Your task to perform on an android device: show emergency info Image 0: 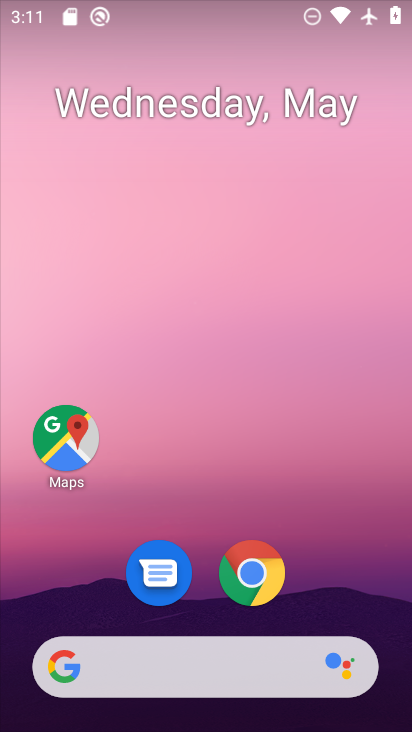
Step 0: drag from (346, 602) to (372, 0)
Your task to perform on an android device: show emergency info Image 1: 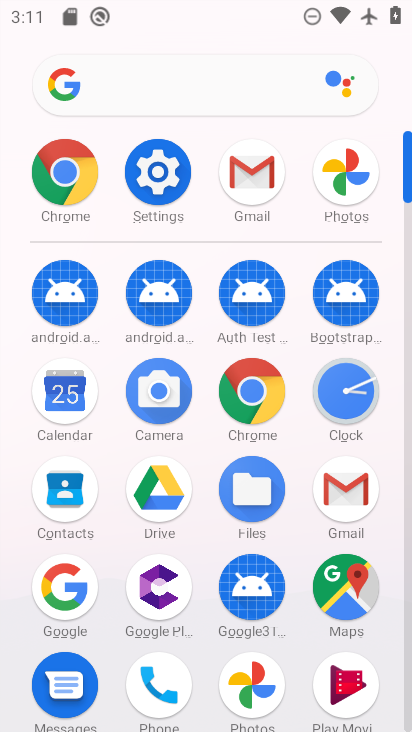
Step 1: click (169, 181)
Your task to perform on an android device: show emergency info Image 2: 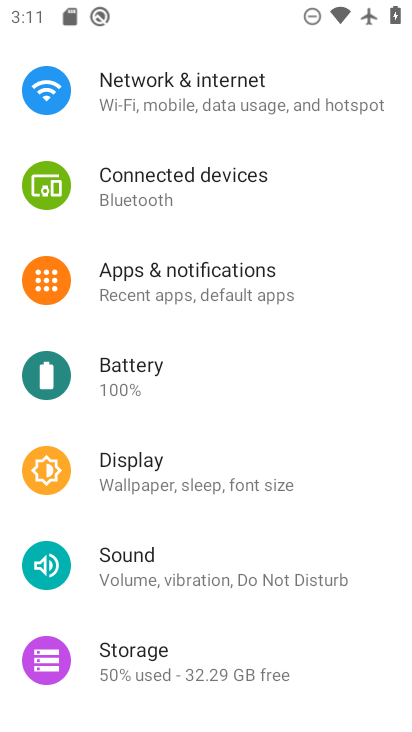
Step 2: drag from (234, 653) to (252, 263)
Your task to perform on an android device: show emergency info Image 3: 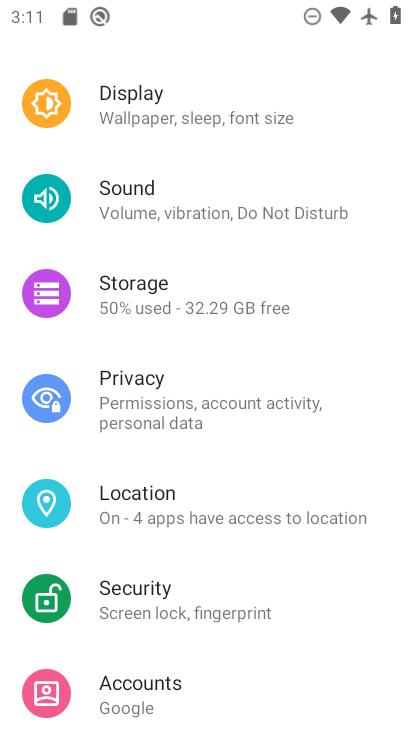
Step 3: drag from (185, 627) to (198, 231)
Your task to perform on an android device: show emergency info Image 4: 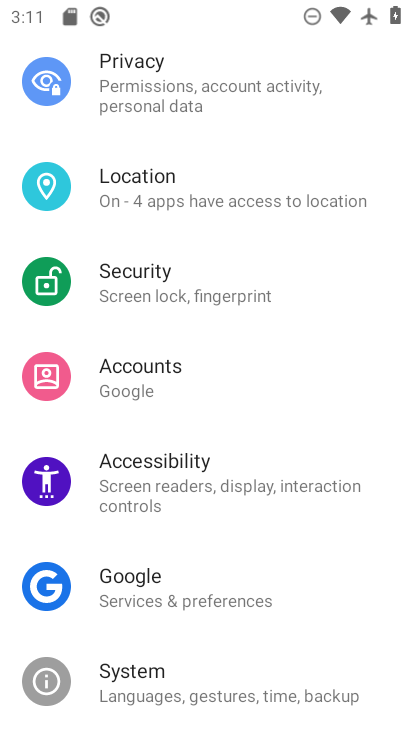
Step 4: drag from (191, 678) to (190, 334)
Your task to perform on an android device: show emergency info Image 5: 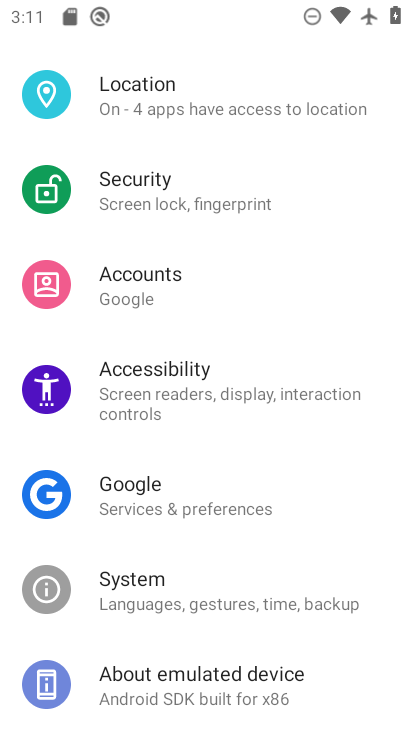
Step 5: click (179, 673)
Your task to perform on an android device: show emergency info Image 6: 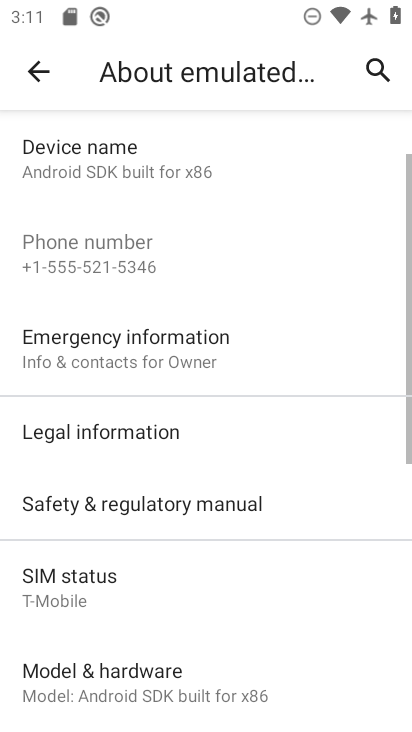
Step 6: click (109, 348)
Your task to perform on an android device: show emergency info Image 7: 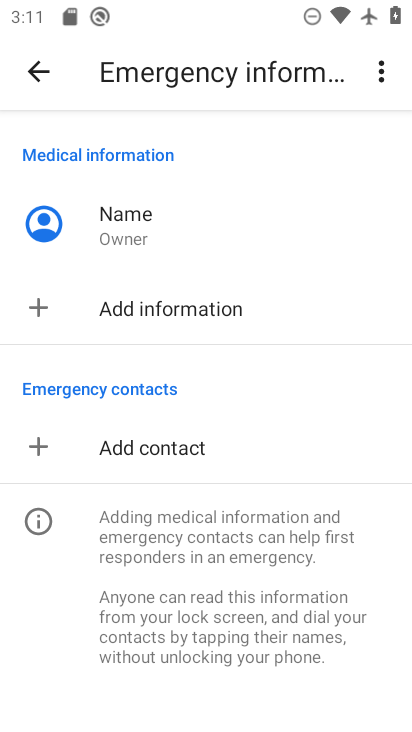
Step 7: task complete